Your task to perform on an android device: turn off data saver in the chrome app Image 0: 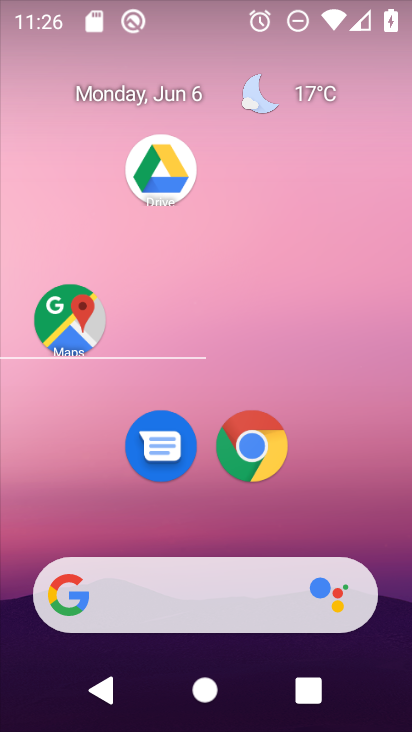
Step 0: click (253, 454)
Your task to perform on an android device: turn off data saver in the chrome app Image 1: 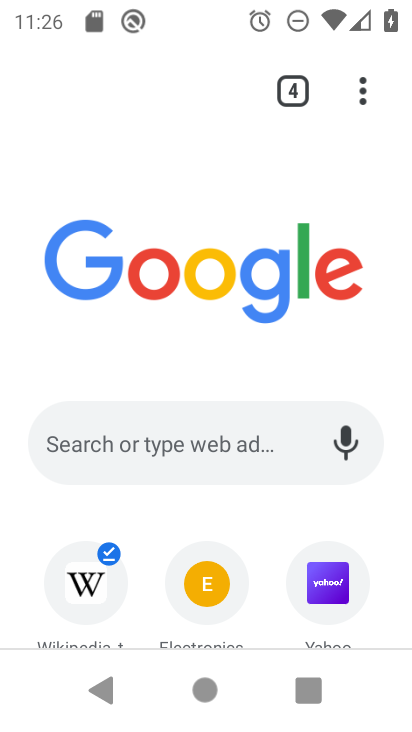
Step 1: click (370, 92)
Your task to perform on an android device: turn off data saver in the chrome app Image 2: 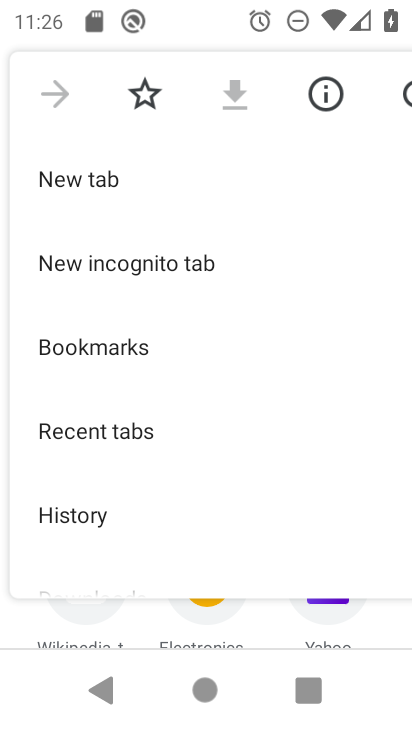
Step 2: drag from (135, 511) to (200, 83)
Your task to perform on an android device: turn off data saver in the chrome app Image 3: 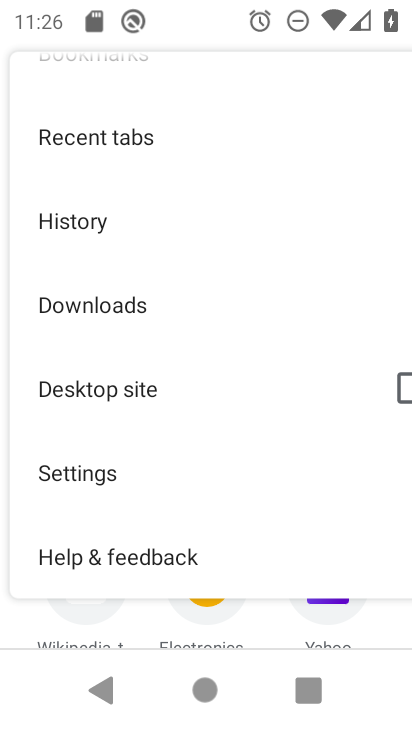
Step 3: click (77, 496)
Your task to perform on an android device: turn off data saver in the chrome app Image 4: 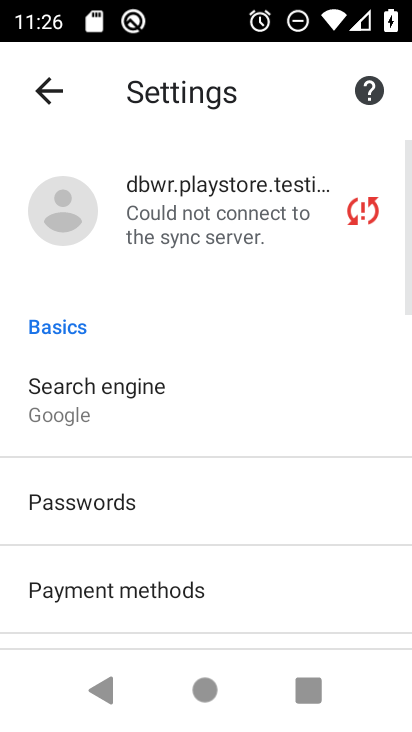
Step 4: task complete